Your task to perform on an android device: open app "Google Maps" (install if not already installed) Image 0: 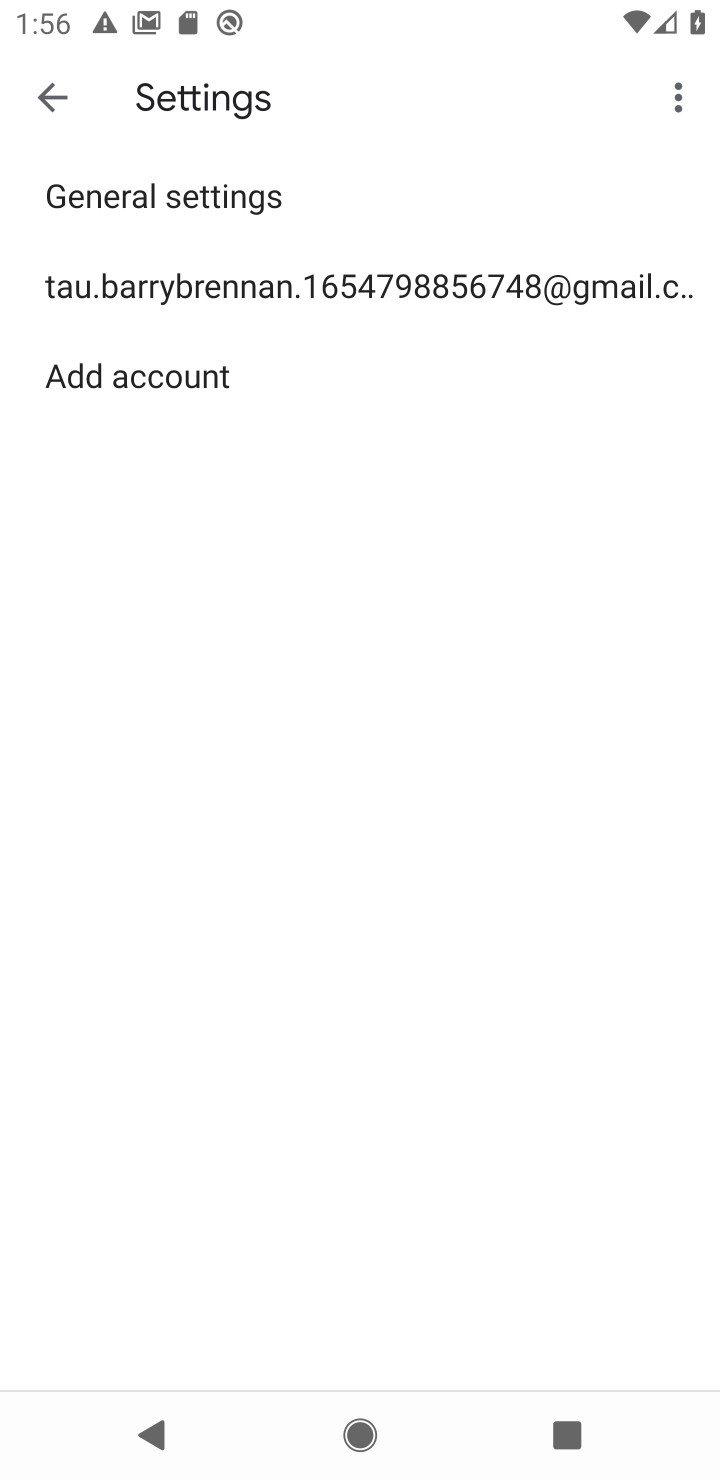
Step 0: press home button
Your task to perform on an android device: open app "Google Maps" (install if not already installed) Image 1: 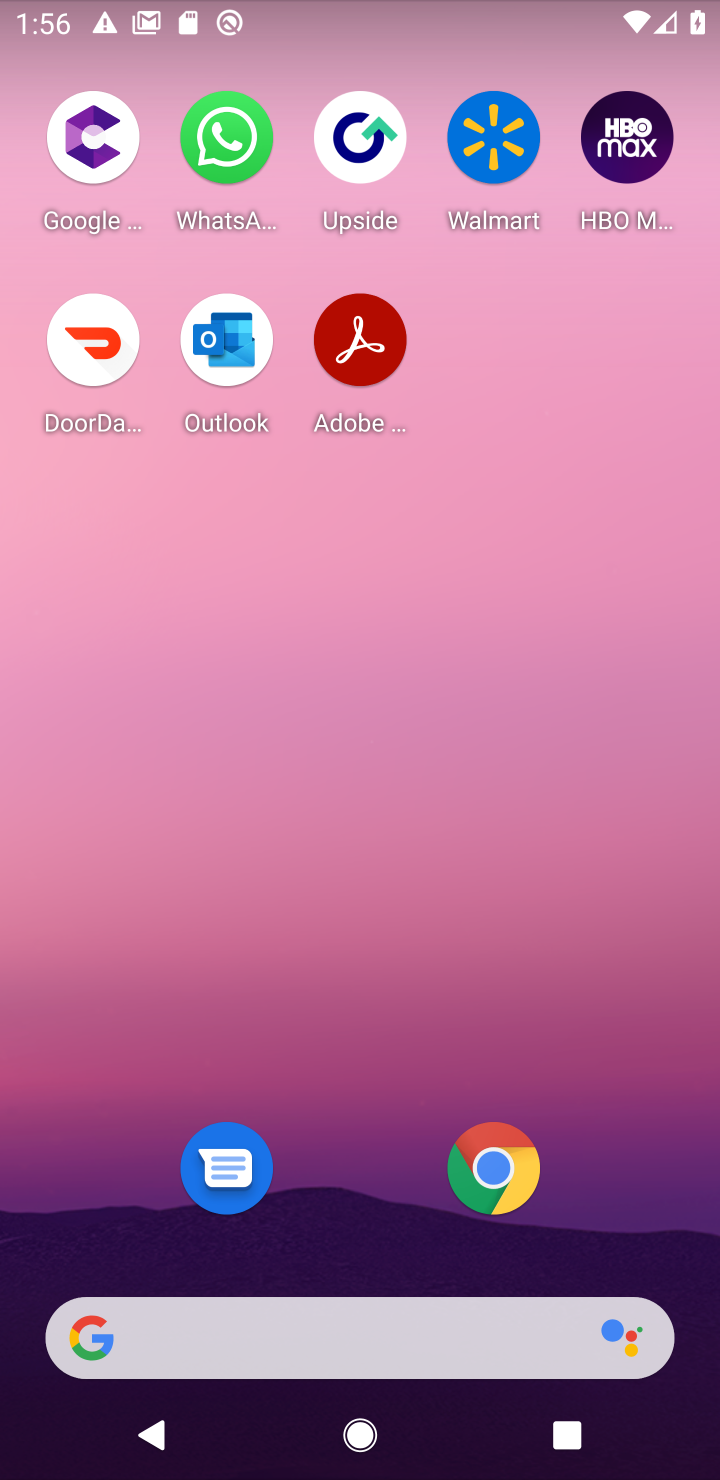
Step 1: drag from (357, 1291) to (254, 138)
Your task to perform on an android device: open app "Google Maps" (install if not already installed) Image 2: 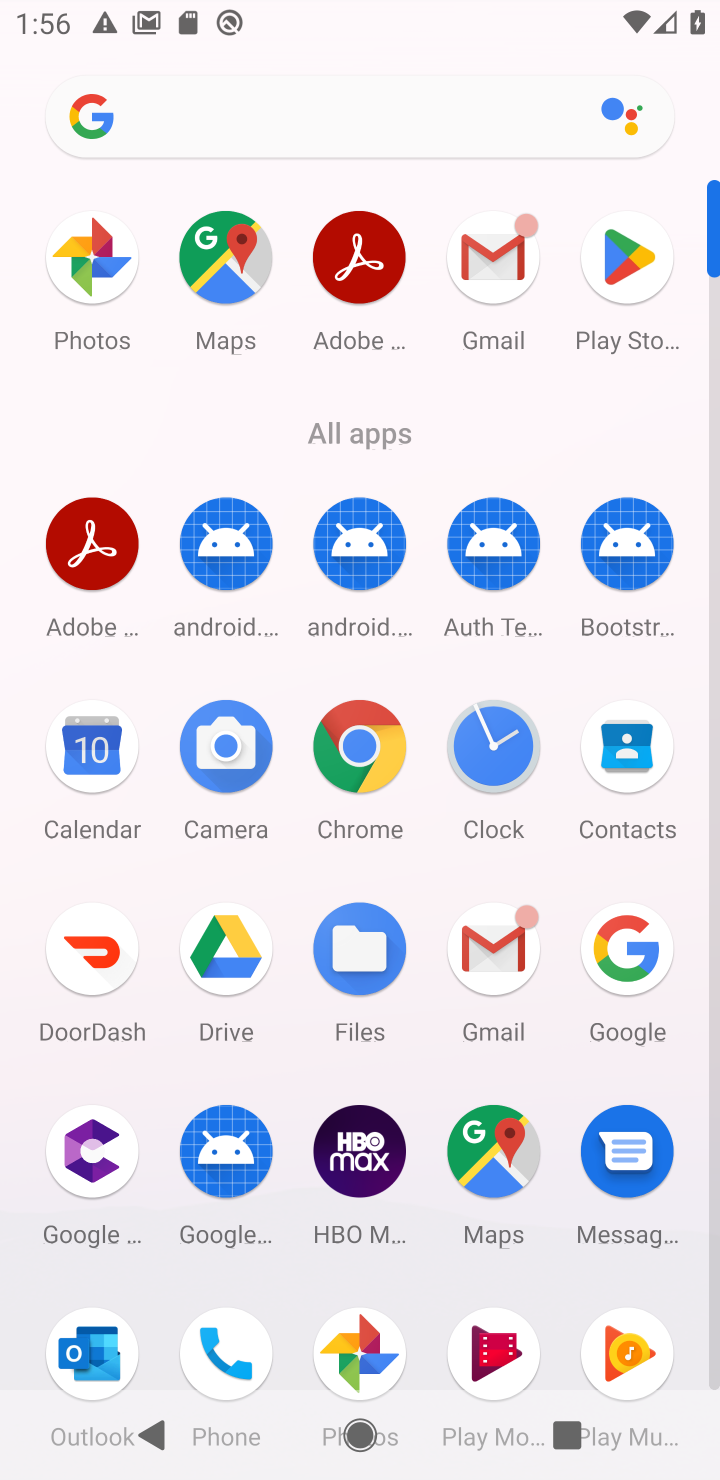
Step 2: click (636, 341)
Your task to perform on an android device: open app "Google Maps" (install if not already installed) Image 3: 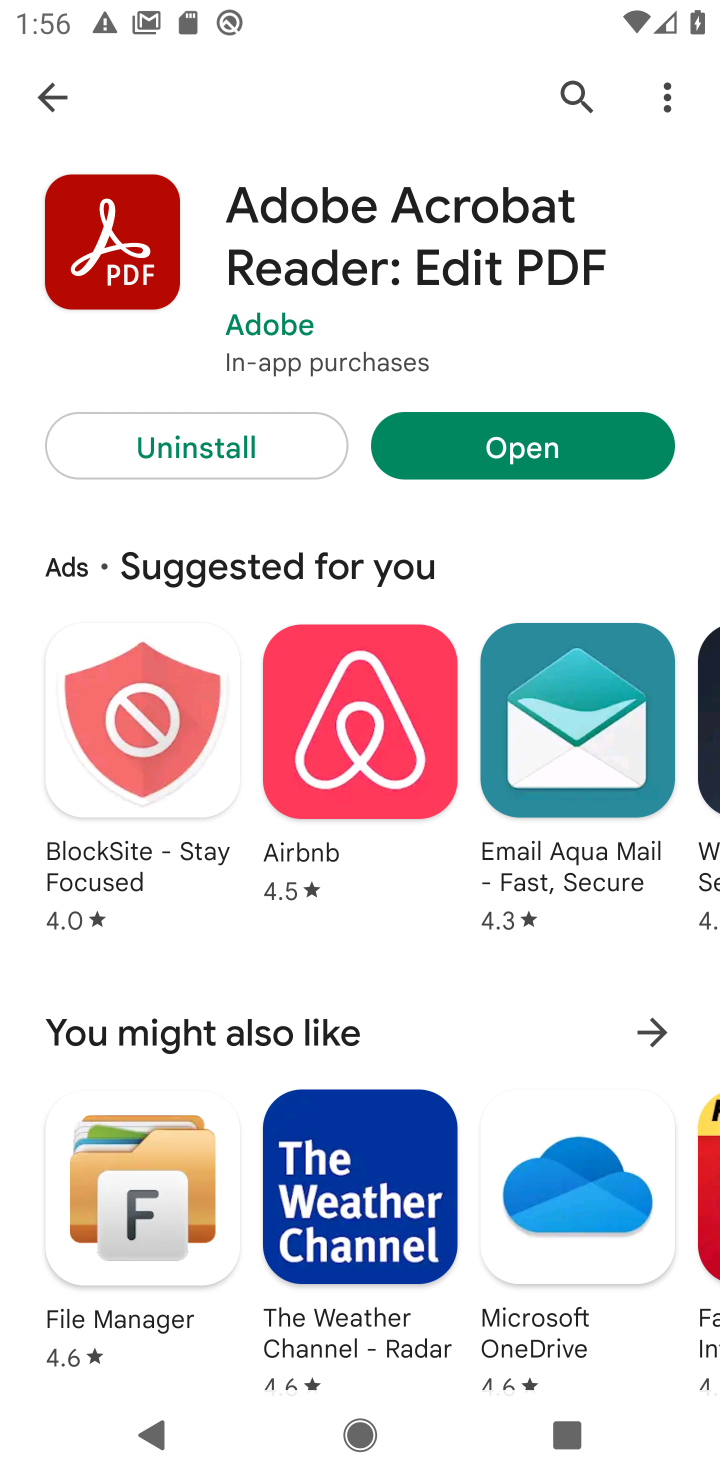
Step 3: press back button
Your task to perform on an android device: open app "Google Maps" (install if not already installed) Image 4: 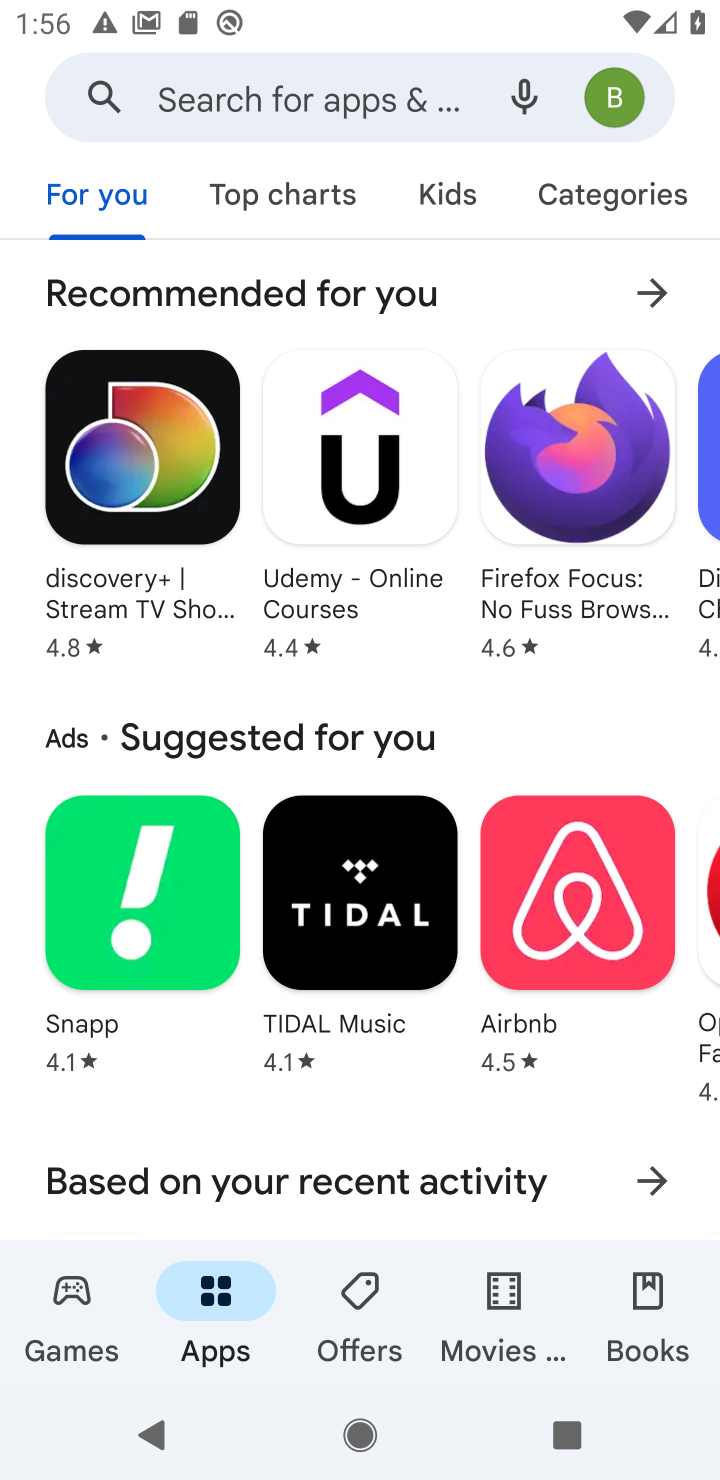
Step 4: click (382, 106)
Your task to perform on an android device: open app "Google Maps" (install if not already installed) Image 5: 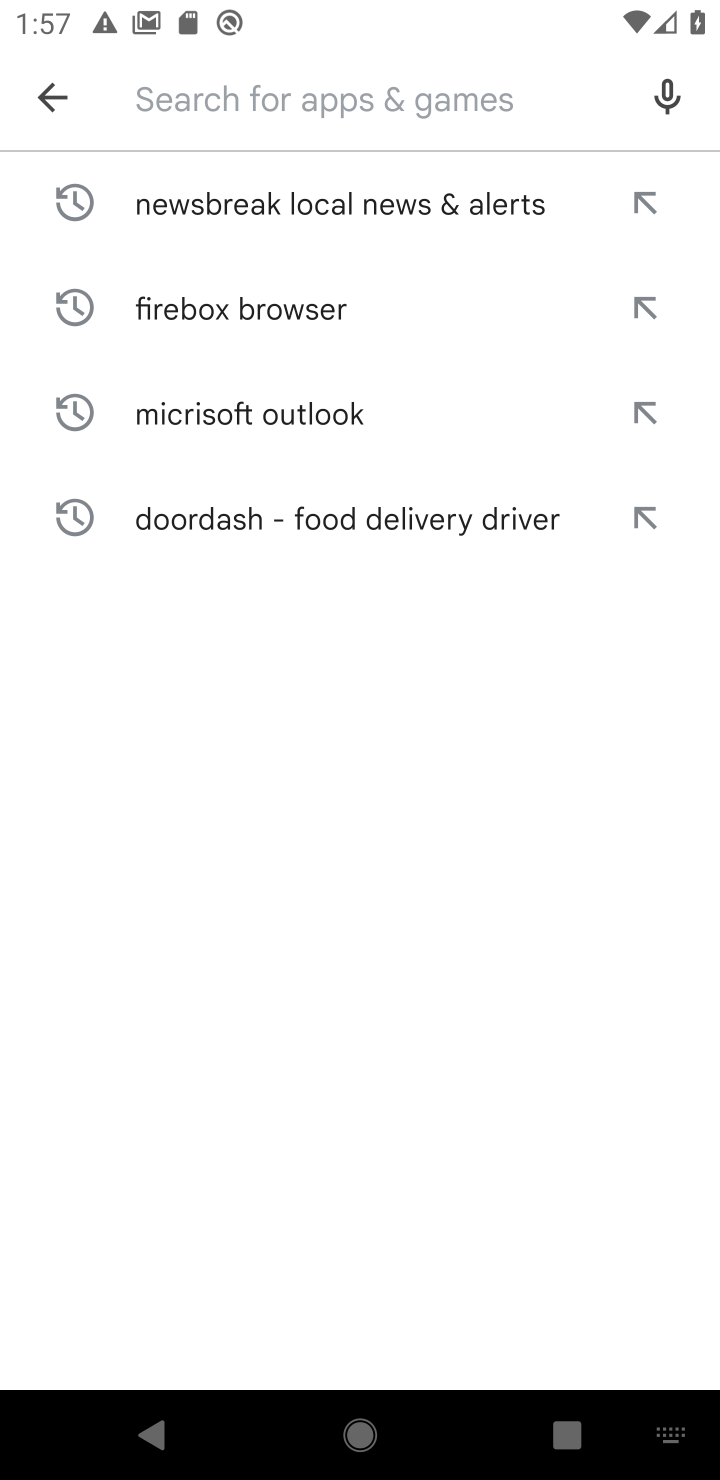
Step 5: type "Google Maps"
Your task to perform on an android device: open app "Google Maps" (install if not already installed) Image 6: 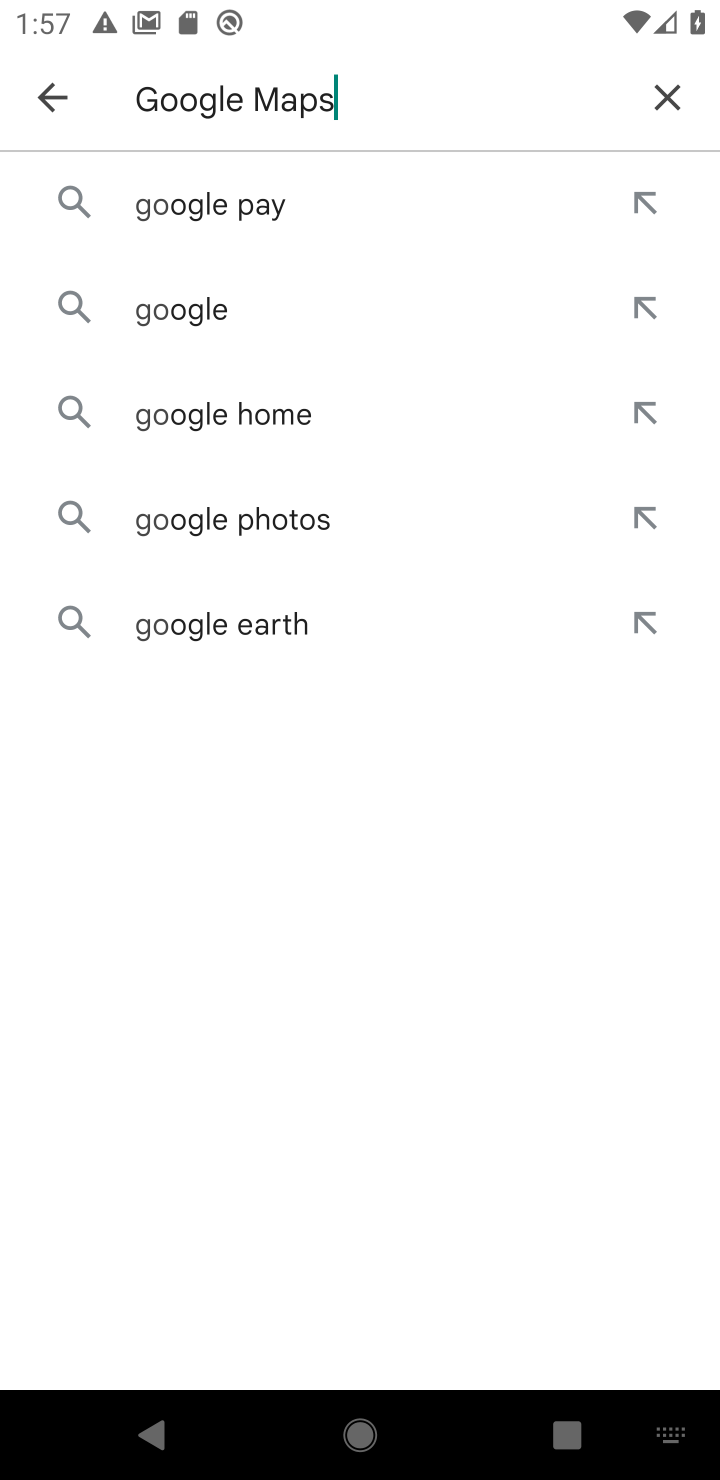
Step 6: type ""
Your task to perform on an android device: open app "Google Maps" (install if not already installed) Image 7: 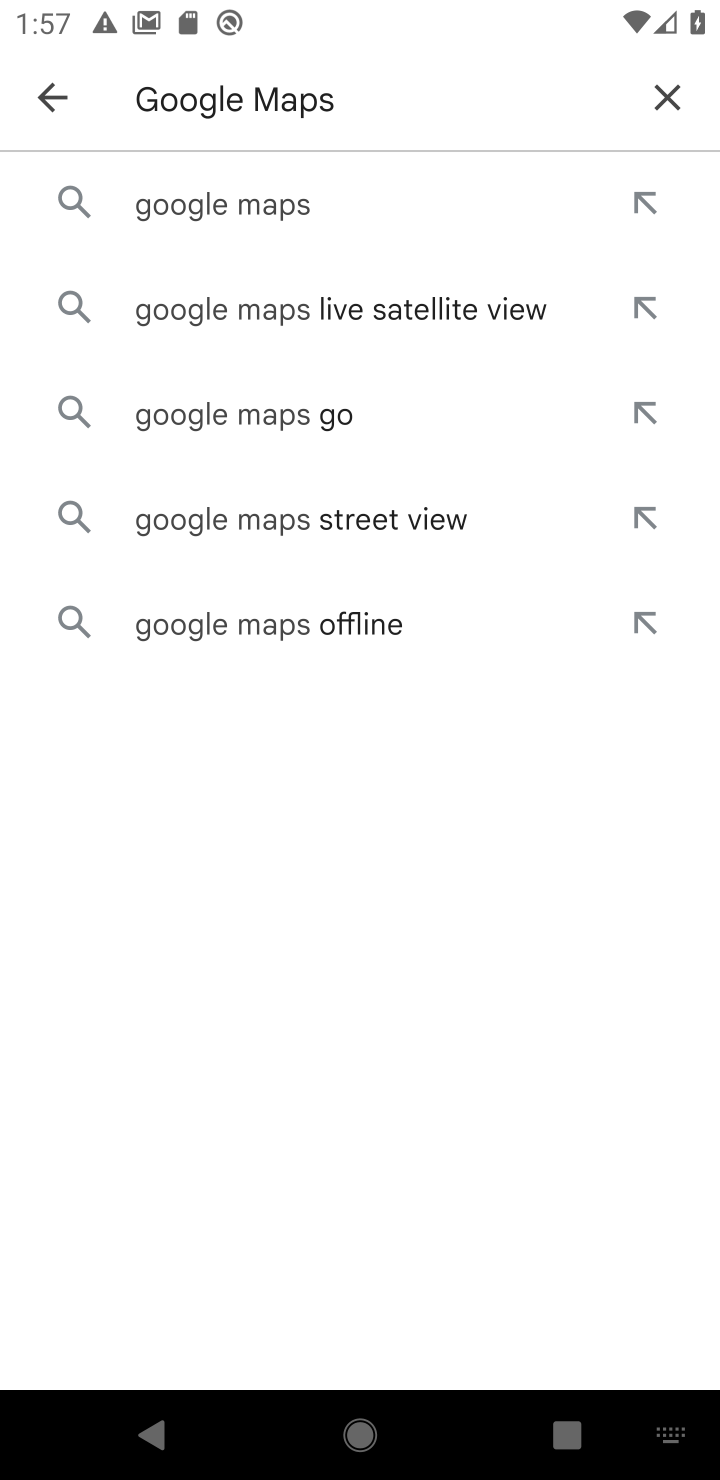
Step 7: click (258, 208)
Your task to perform on an android device: open app "Google Maps" (install if not already installed) Image 8: 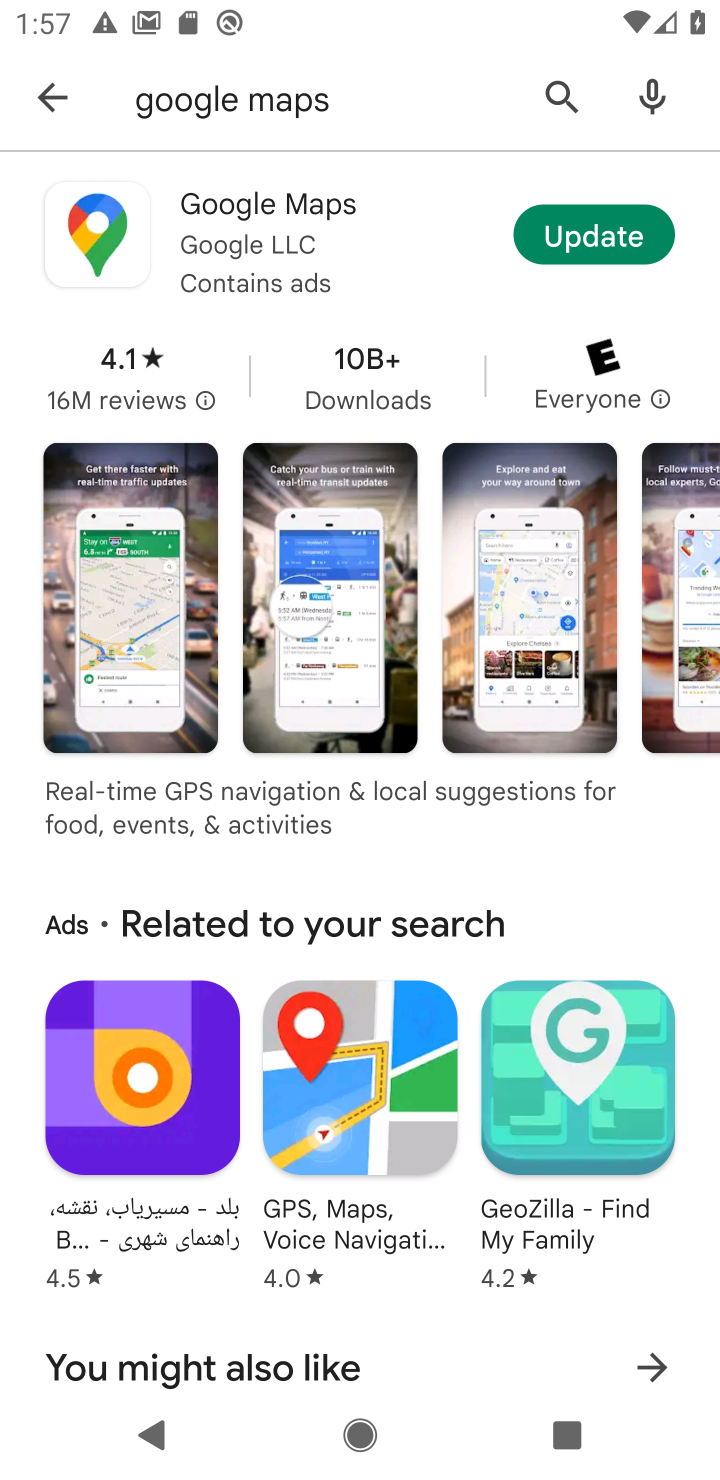
Step 8: click (262, 231)
Your task to perform on an android device: open app "Google Maps" (install if not already installed) Image 9: 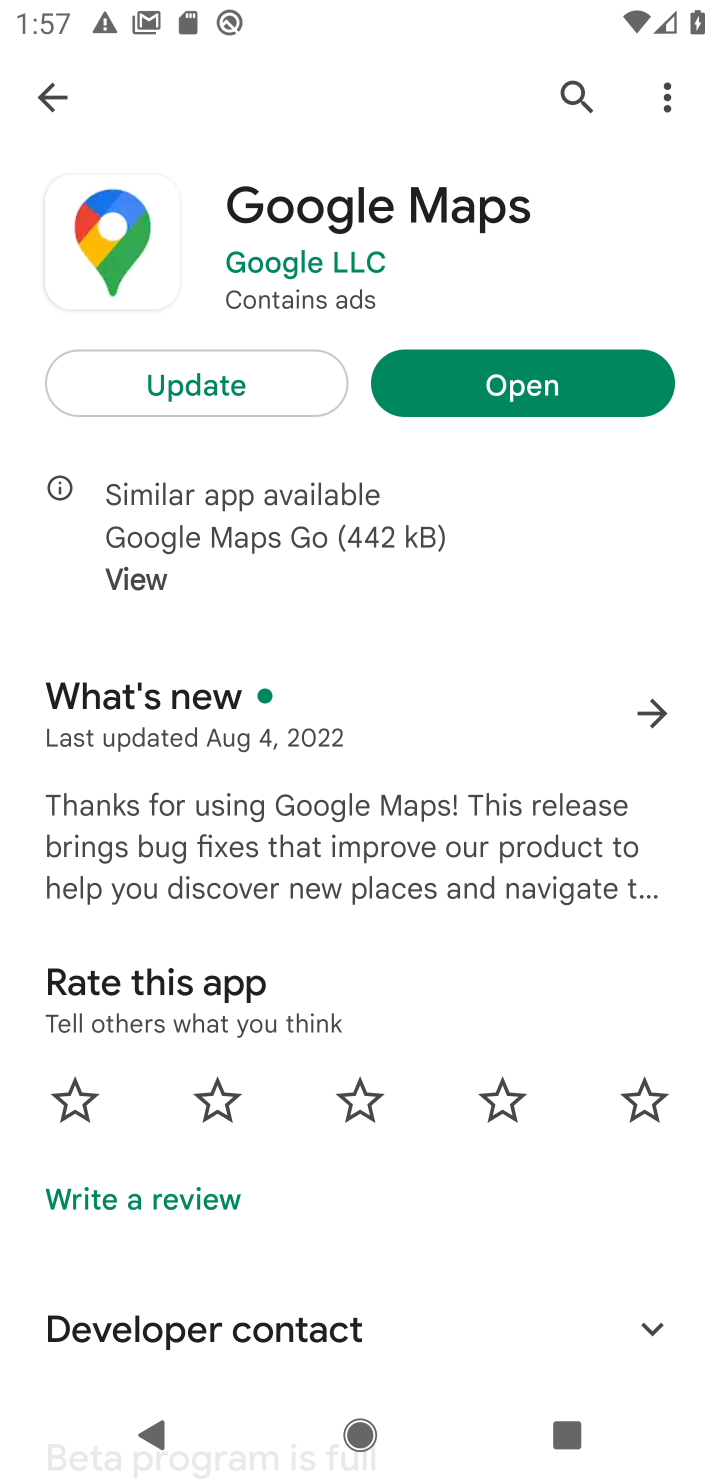
Step 9: click (520, 393)
Your task to perform on an android device: open app "Google Maps" (install if not already installed) Image 10: 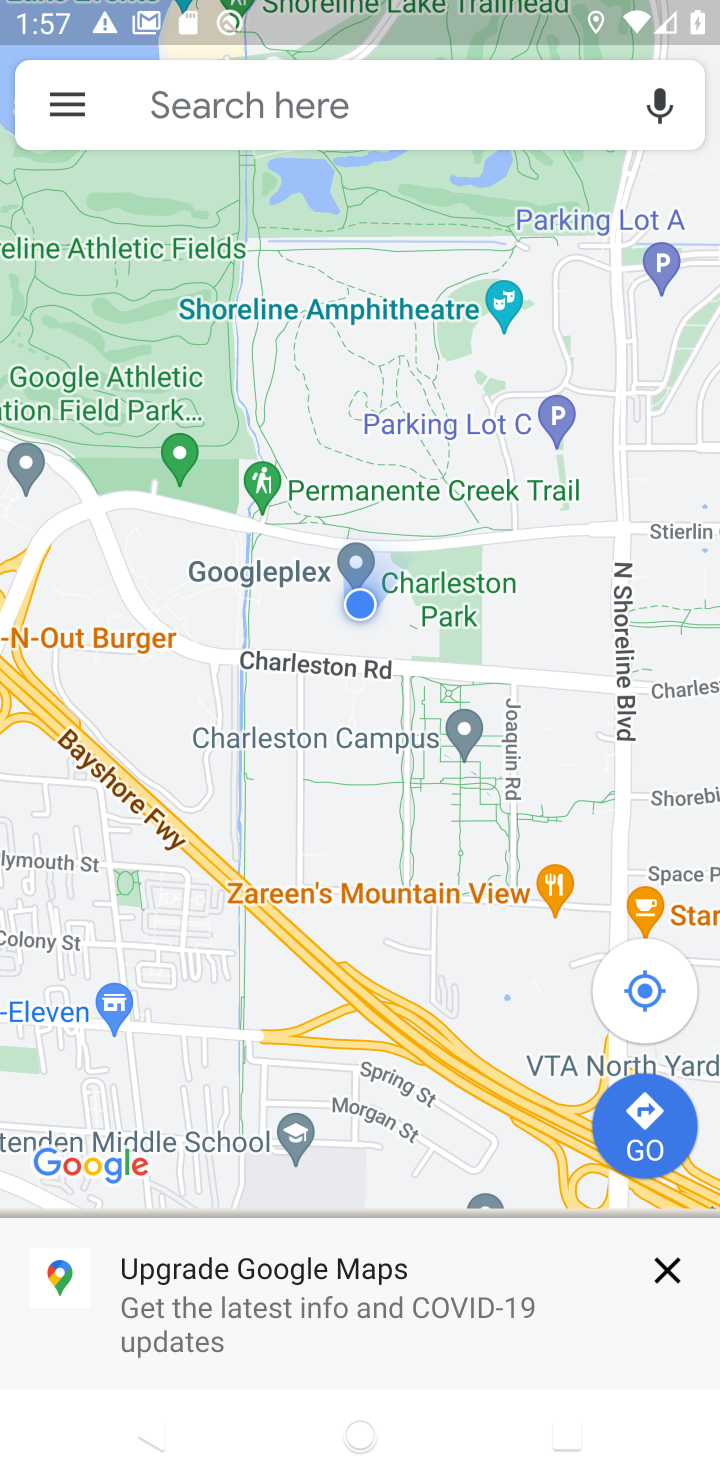
Step 10: task complete